Your task to perform on an android device: open a bookmark in the chrome app Image 0: 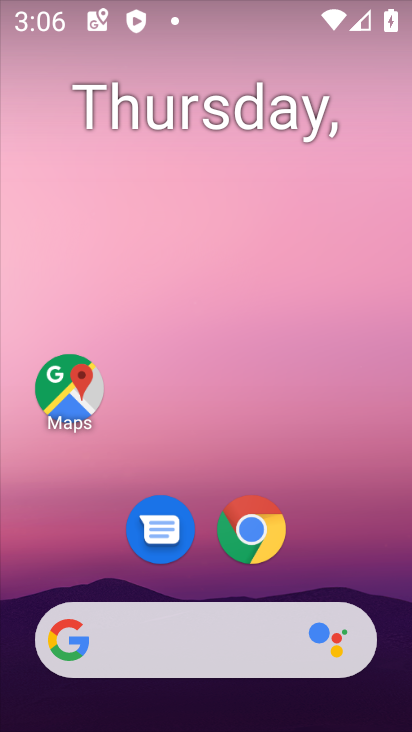
Step 0: click (253, 531)
Your task to perform on an android device: open a bookmark in the chrome app Image 1: 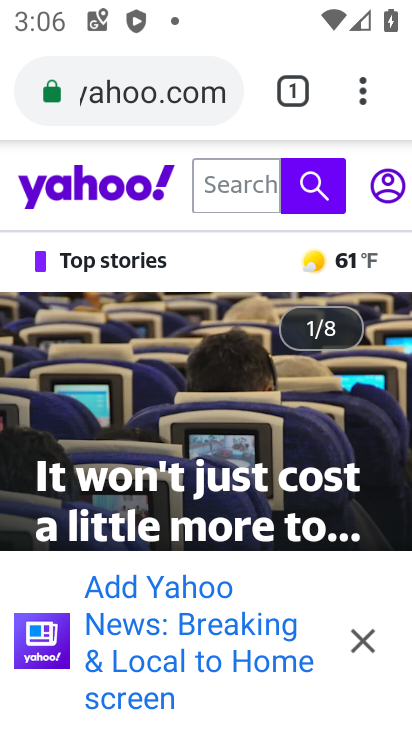
Step 1: click (361, 95)
Your task to perform on an android device: open a bookmark in the chrome app Image 2: 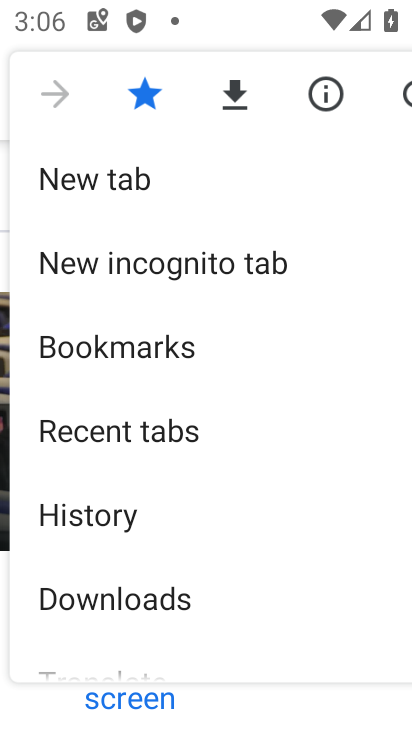
Step 2: click (158, 359)
Your task to perform on an android device: open a bookmark in the chrome app Image 3: 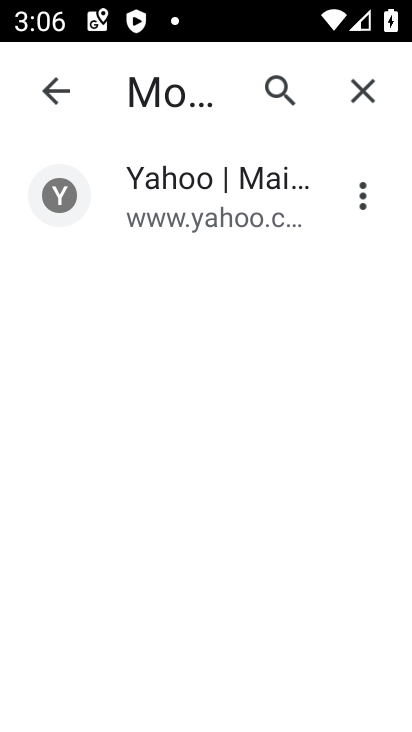
Step 3: task complete